Your task to perform on an android device: turn off javascript in the chrome app Image 0: 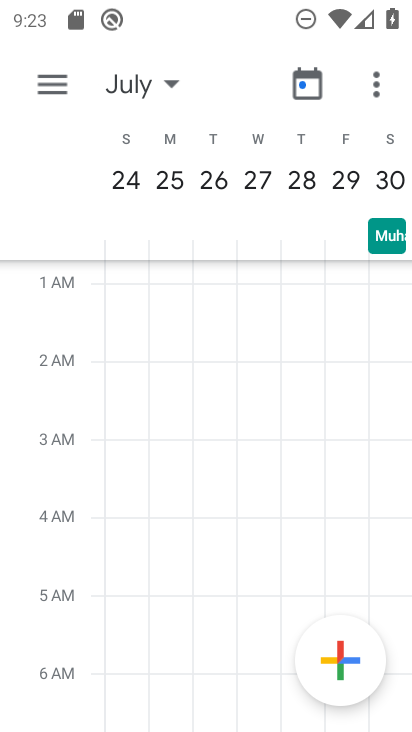
Step 0: press home button
Your task to perform on an android device: turn off javascript in the chrome app Image 1: 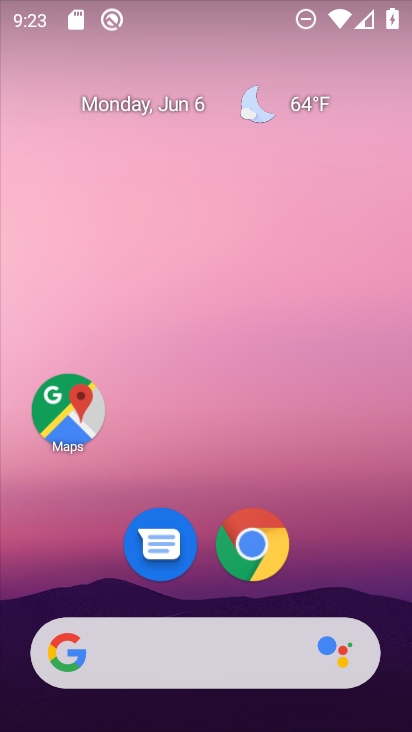
Step 1: click (247, 543)
Your task to perform on an android device: turn off javascript in the chrome app Image 2: 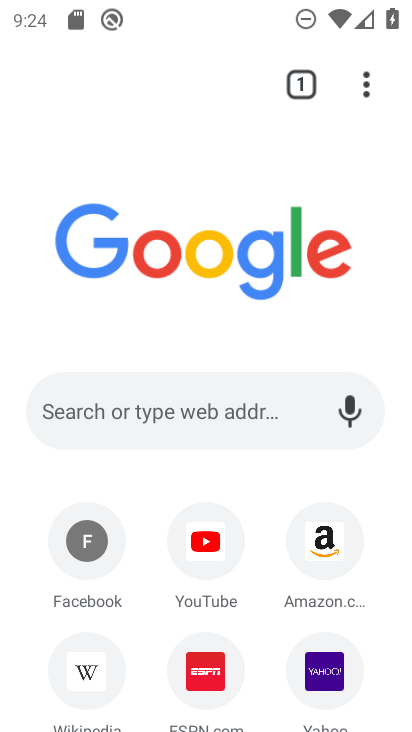
Step 2: click (364, 87)
Your task to perform on an android device: turn off javascript in the chrome app Image 3: 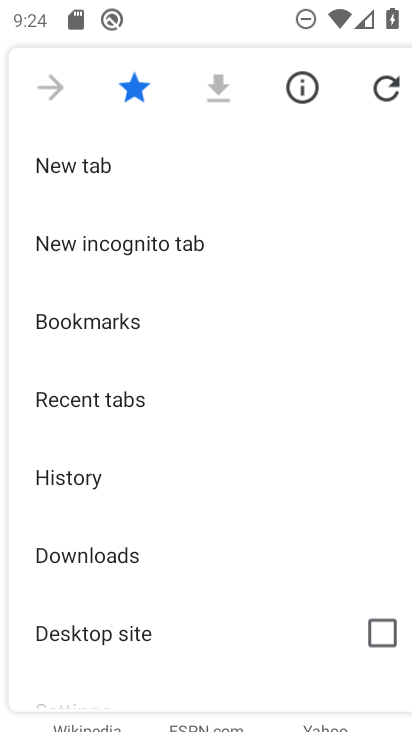
Step 3: drag from (174, 566) to (200, 273)
Your task to perform on an android device: turn off javascript in the chrome app Image 4: 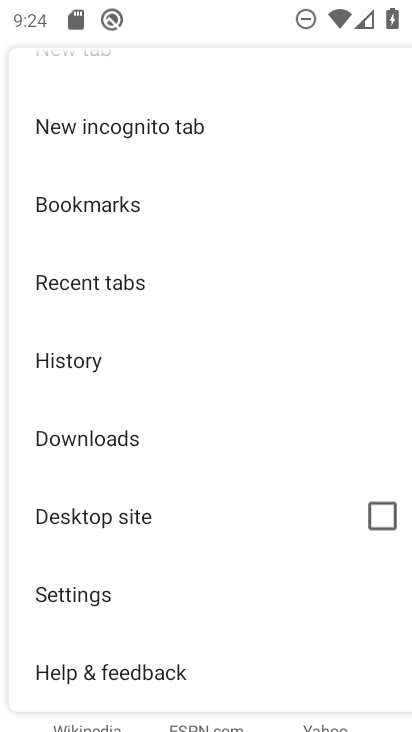
Step 4: click (82, 586)
Your task to perform on an android device: turn off javascript in the chrome app Image 5: 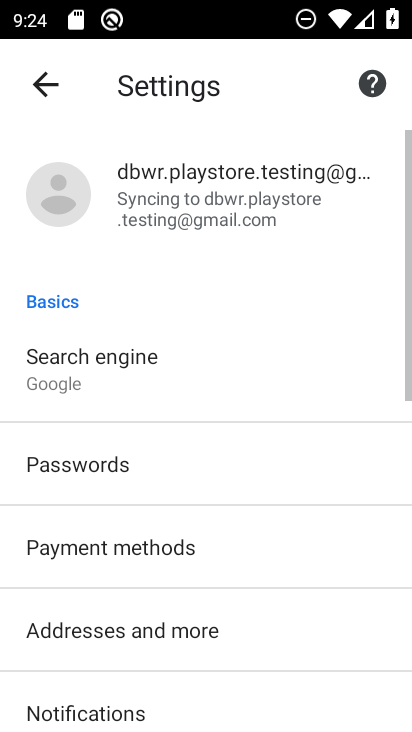
Step 5: drag from (266, 637) to (233, 128)
Your task to perform on an android device: turn off javascript in the chrome app Image 6: 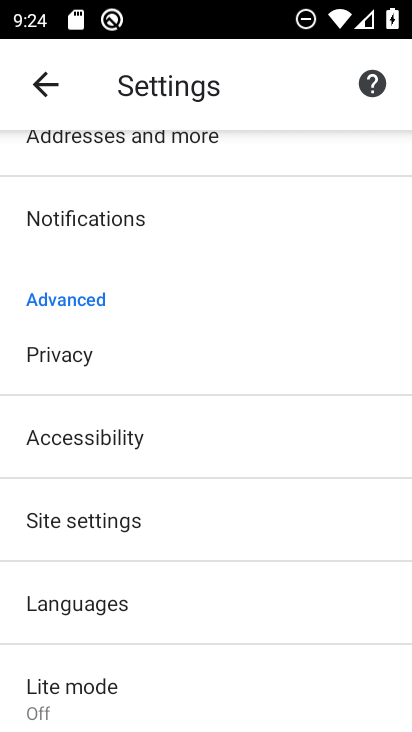
Step 6: click (93, 511)
Your task to perform on an android device: turn off javascript in the chrome app Image 7: 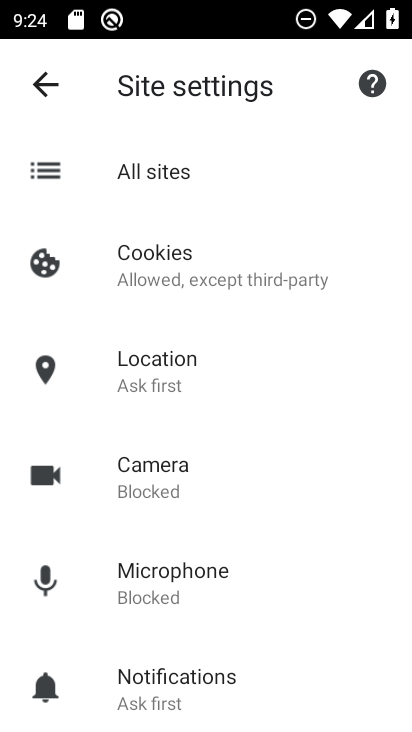
Step 7: drag from (294, 667) to (311, 290)
Your task to perform on an android device: turn off javascript in the chrome app Image 8: 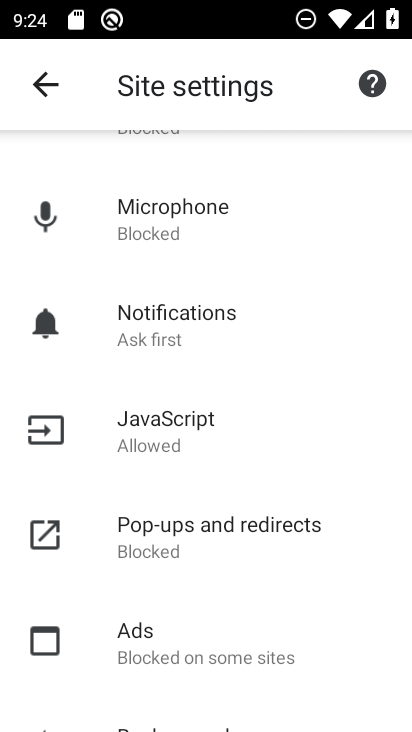
Step 8: click (140, 435)
Your task to perform on an android device: turn off javascript in the chrome app Image 9: 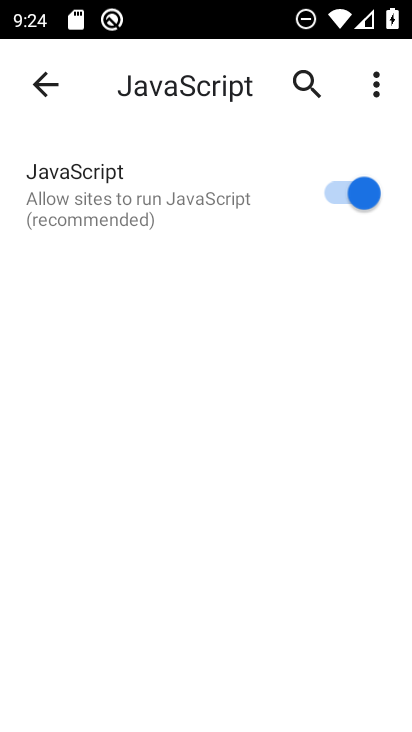
Step 9: click (322, 189)
Your task to perform on an android device: turn off javascript in the chrome app Image 10: 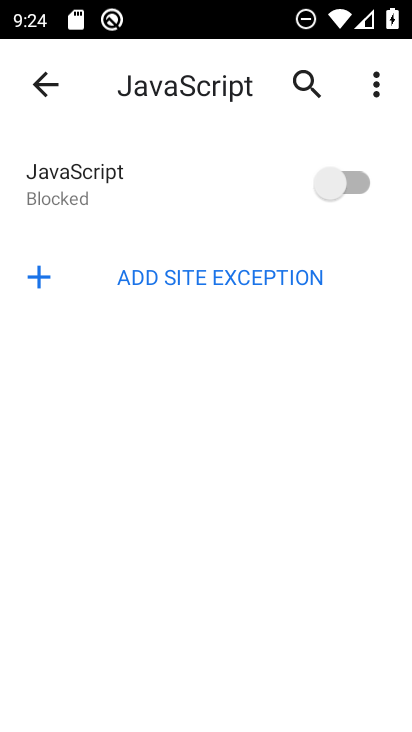
Step 10: task complete